Your task to perform on an android device: Open network settings Image 0: 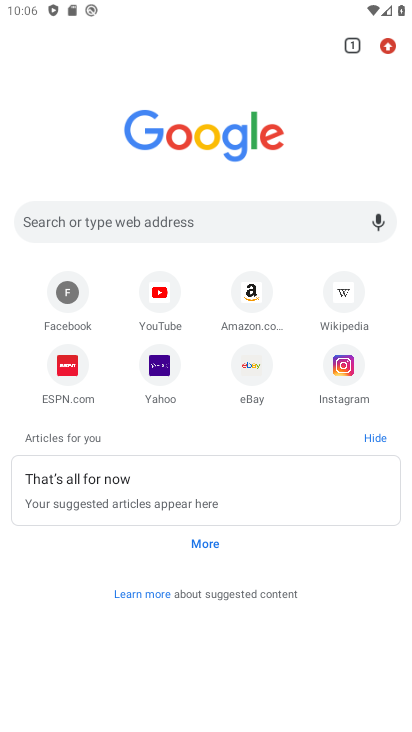
Step 0: press back button
Your task to perform on an android device: Open network settings Image 1: 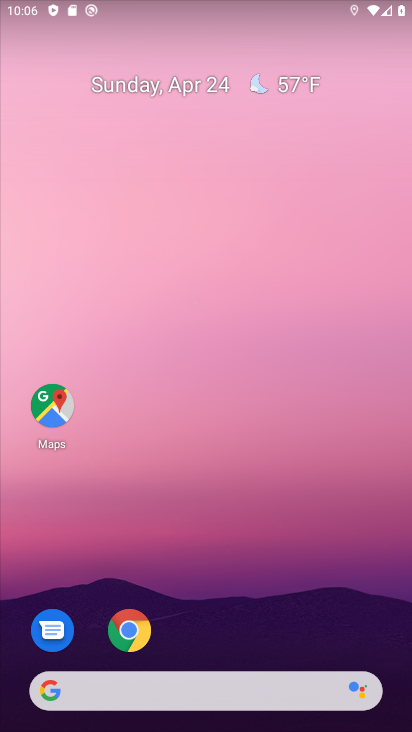
Step 1: drag from (243, 614) to (169, 58)
Your task to perform on an android device: Open network settings Image 2: 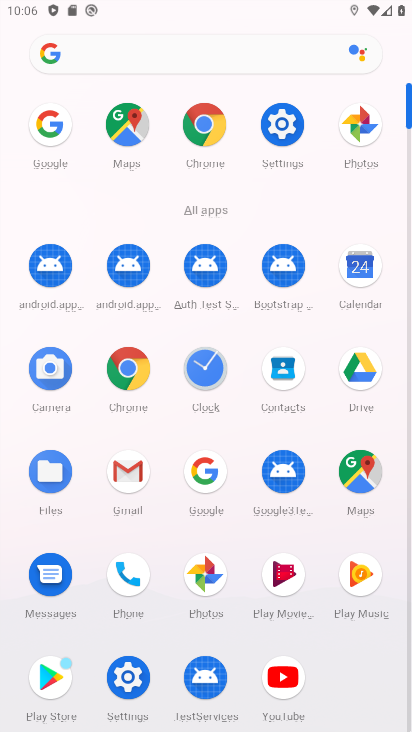
Step 2: click (278, 125)
Your task to perform on an android device: Open network settings Image 3: 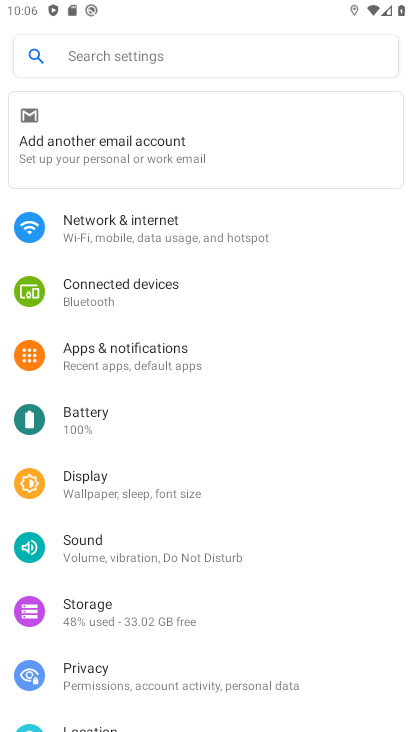
Step 3: click (120, 226)
Your task to perform on an android device: Open network settings Image 4: 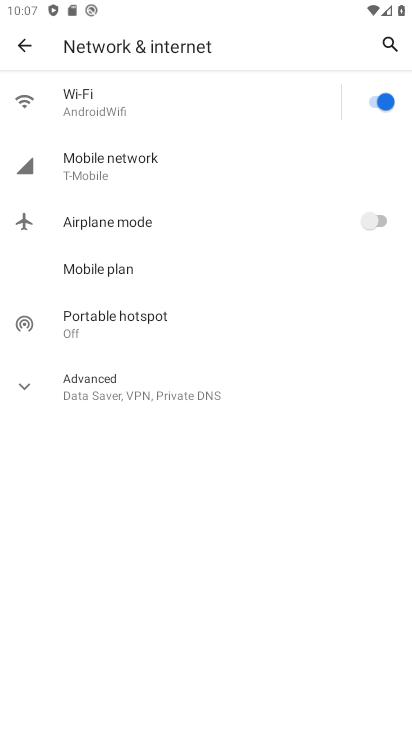
Step 4: click (136, 165)
Your task to perform on an android device: Open network settings Image 5: 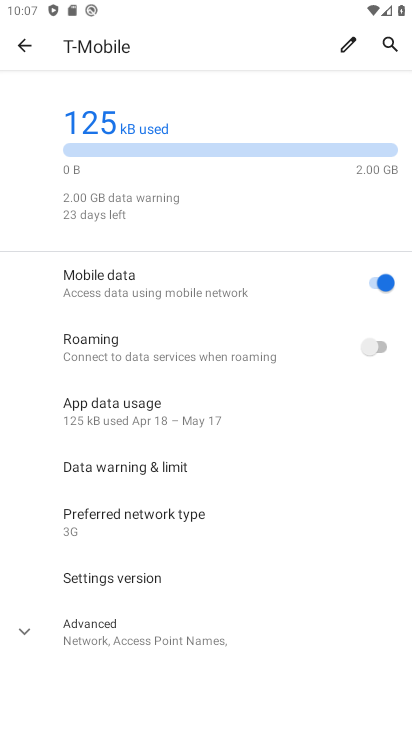
Step 5: task complete